Your task to perform on an android device: turn pop-ups on in chrome Image 0: 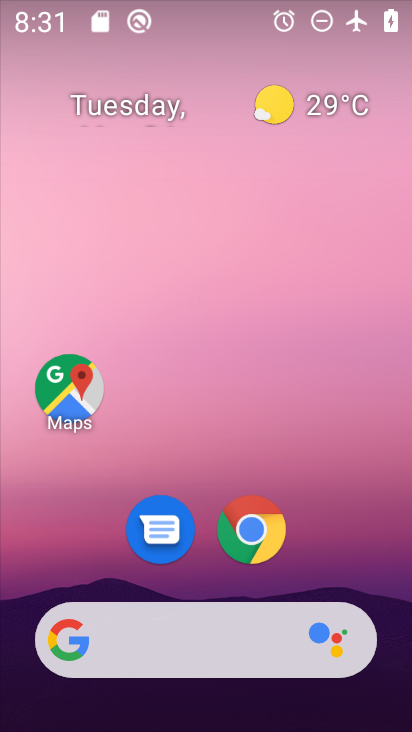
Step 0: drag from (402, 620) to (276, 131)
Your task to perform on an android device: turn pop-ups on in chrome Image 1: 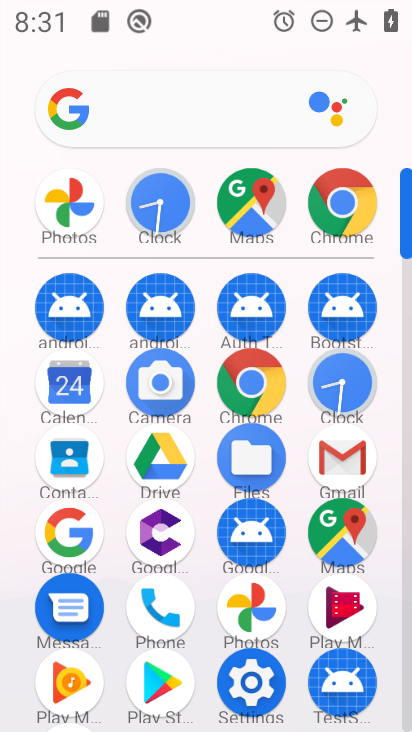
Step 1: click (325, 204)
Your task to perform on an android device: turn pop-ups on in chrome Image 2: 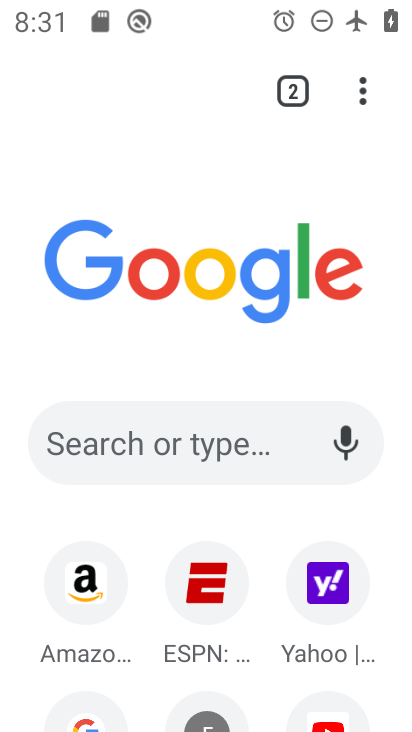
Step 2: click (363, 89)
Your task to perform on an android device: turn pop-ups on in chrome Image 3: 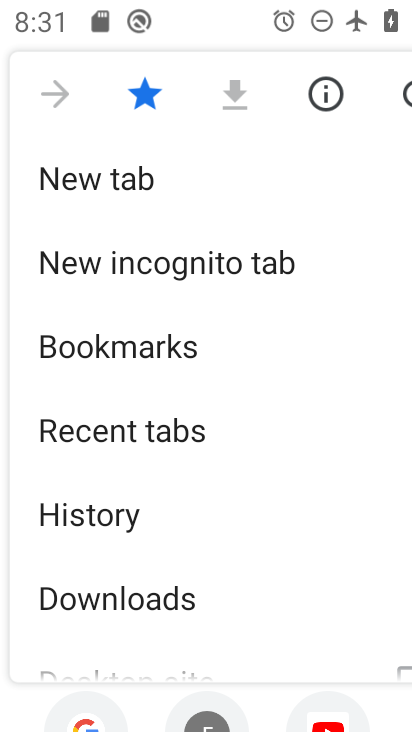
Step 3: drag from (184, 608) to (212, 141)
Your task to perform on an android device: turn pop-ups on in chrome Image 4: 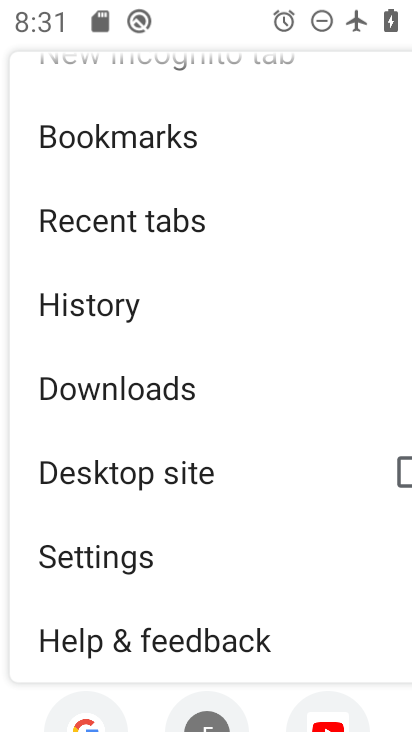
Step 4: click (156, 563)
Your task to perform on an android device: turn pop-ups on in chrome Image 5: 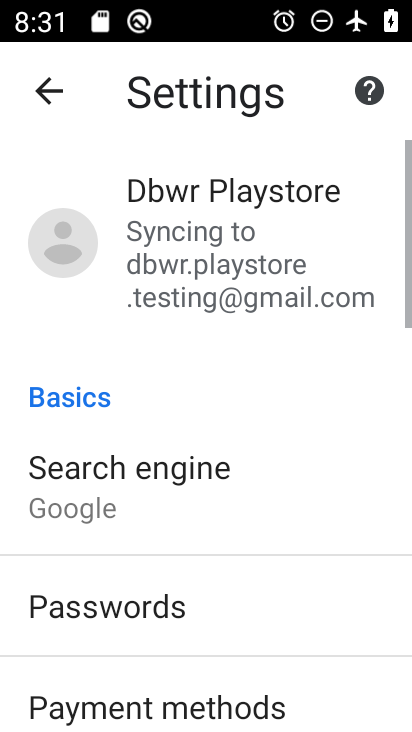
Step 5: drag from (201, 648) to (234, 159)
Your task to perform on an android device: turn pop-ups on in chrome Image 6: 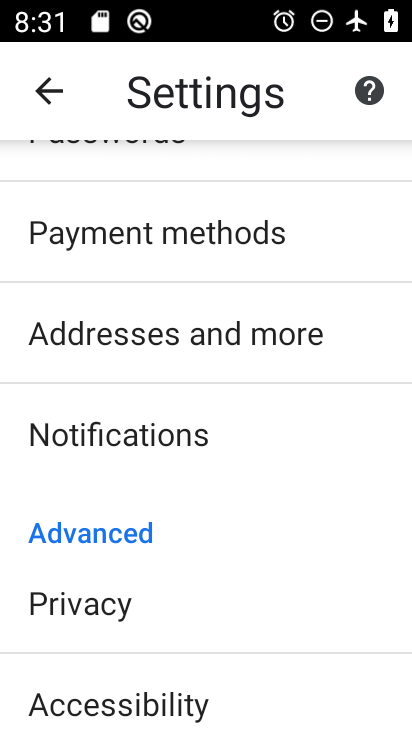
Step 6: drag from (179, 661) to (211, 221)
Your task to perform on an android device: turn pop-ups on in chrome Image 7: 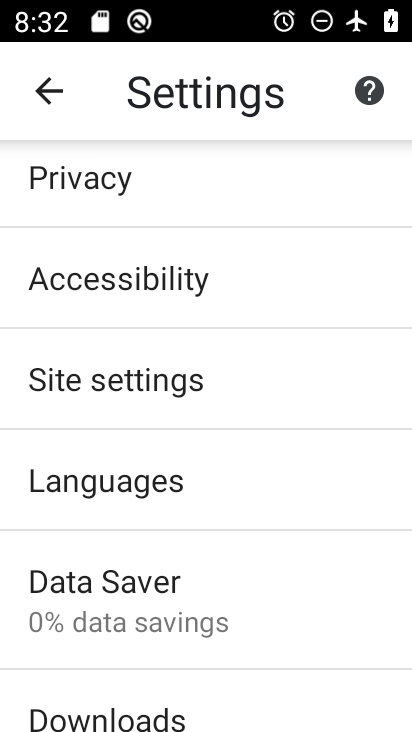
Step 7: click (184, 400)
Your task to perform on an android device: turn pop-ups on in chrome Image 8: 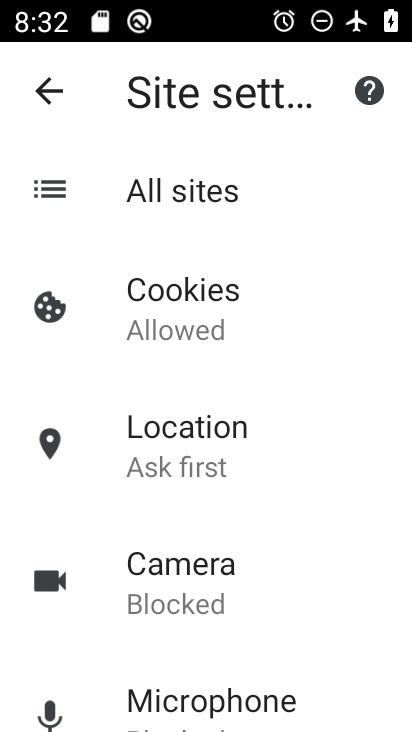
Step 8: drag from (232, 659) to (239, 343)
Your task to perform on an android device: turn pop-ups on in chrome Image 9: 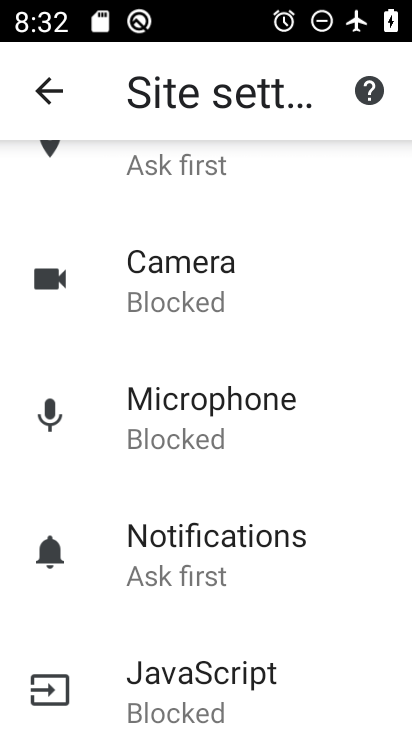
Step 9: drag from (230, 640) to (240, 239)
Your task to perform on an android device: turn pop-ups on in chrome Image 10: 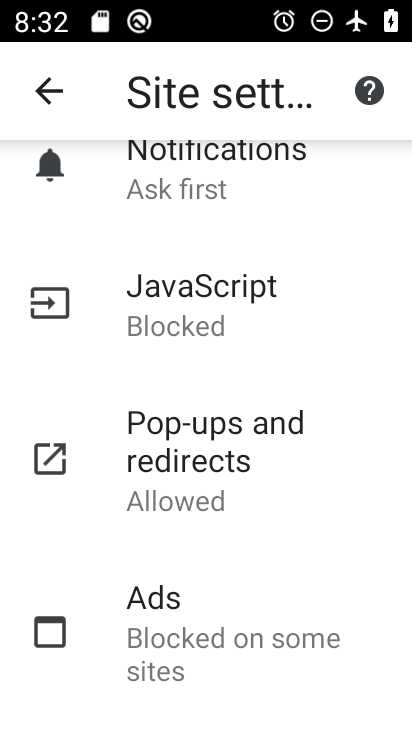
Step 10: click (277, 456)
Your task to perform on an android device: turn pop-ups on in chrome Image 11: 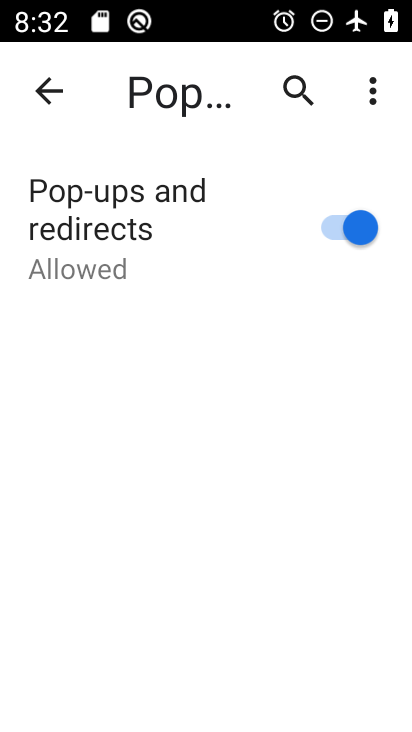
Step 11: task complete